Your task to perform on an android device: Open Youtube and go to "Your channel" Image 0: 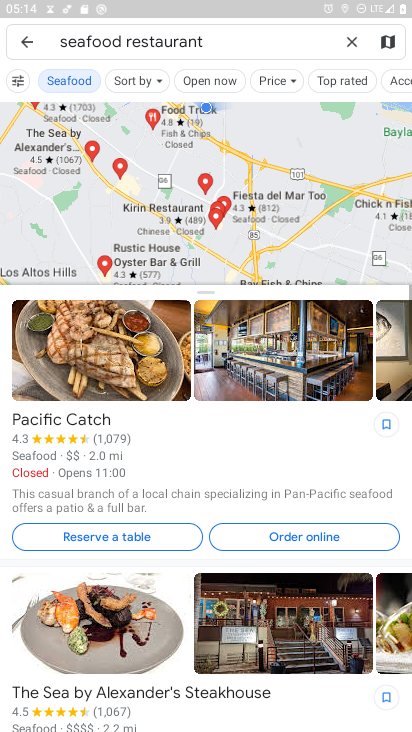
Step 0: press home button
Your task to perform on an android device: Open Youtube and go to "Your channel" Image 1: 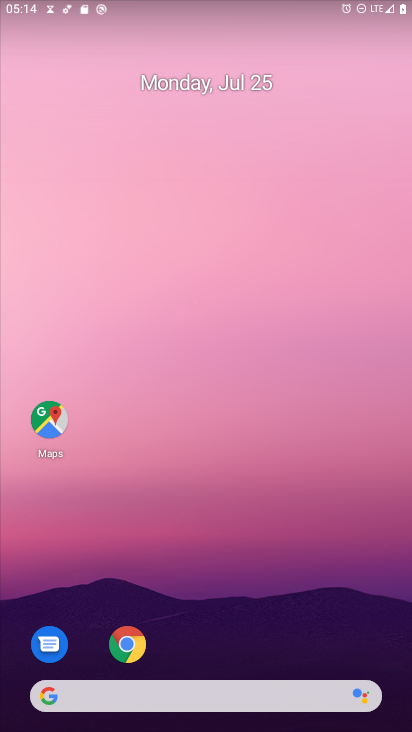
Step 1: drag from (242, 635) to (219, 38)
Your task to perform on an android device: Open Youtube and go to "Your channel" Image 2: 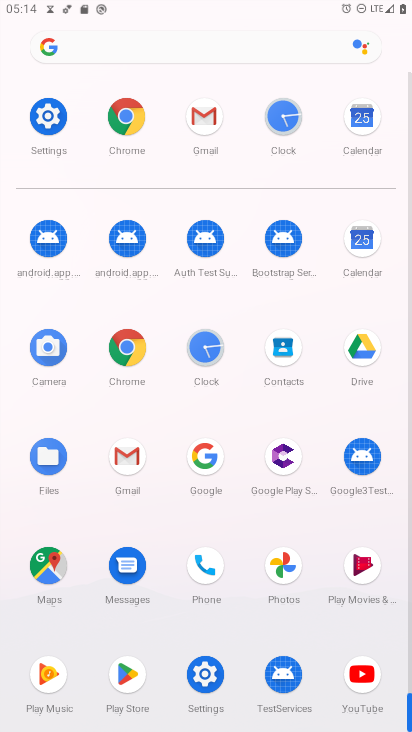
Step 2: click (363, 673)
Your task to perform on an android device: Open Youtube and go to "Your channel" Image 3: 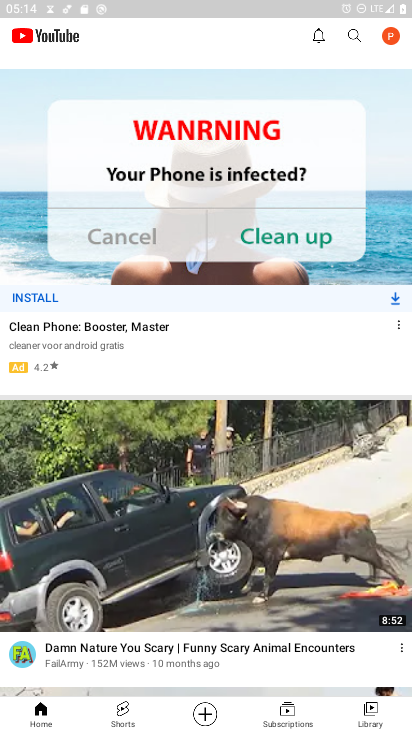
Step 3: click (392, 28)
Your task to perform on an android device: Open Youtube and go to "Your channel" Image 4: 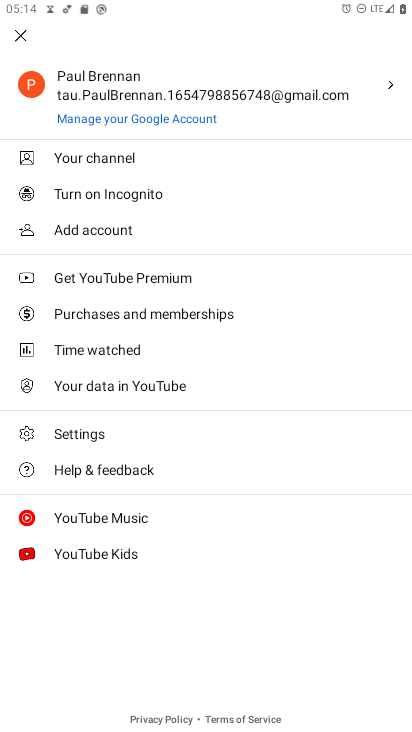
Step 4: click (77, 161)
Your task to perform on an android device: Open Youtube and go to "Your channel" Image 5: 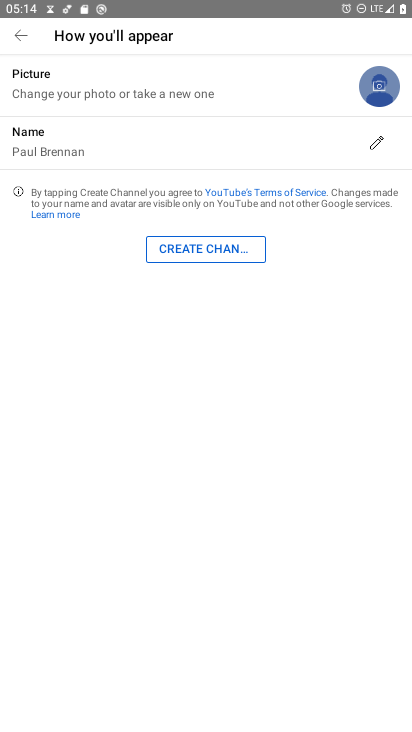
Step 5: task complete